Your task to perform on an android device: Open Google Maps Image 0: 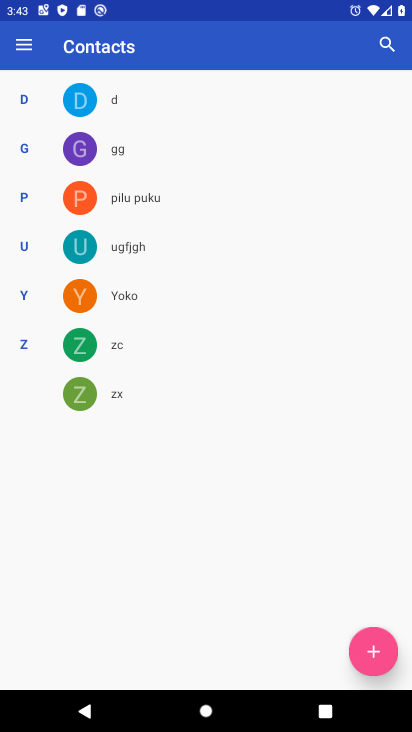
Step 0: press home button
Your task to perform on an android device: Open Google Maps Image 1: 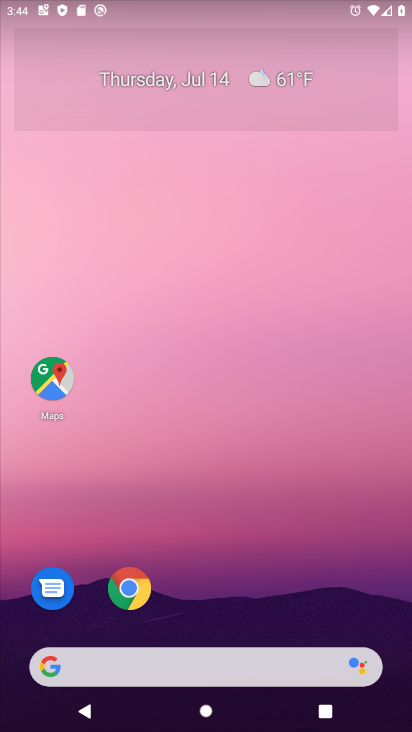
Step 1: click (46, 382)
Your task to perform on an android device: Open Google Maps Image 2: 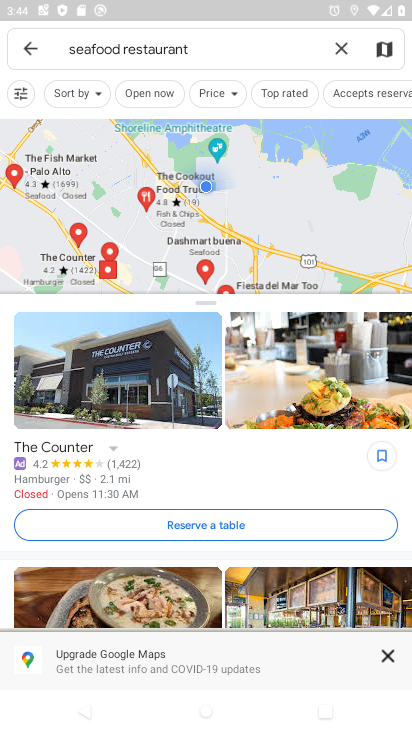
Step 2: click (25, 45)
Your task to perform on an android device: Open Google Maps Image 3: 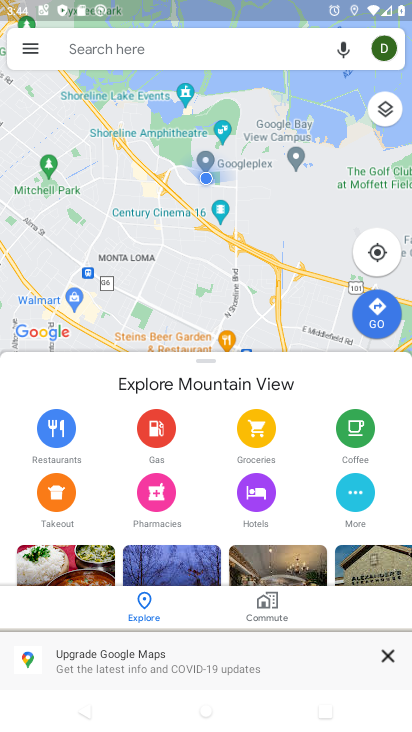
Step 3: task complete